Your task to perform on an android device: turn on notifications settings in the gmail app Image 0: 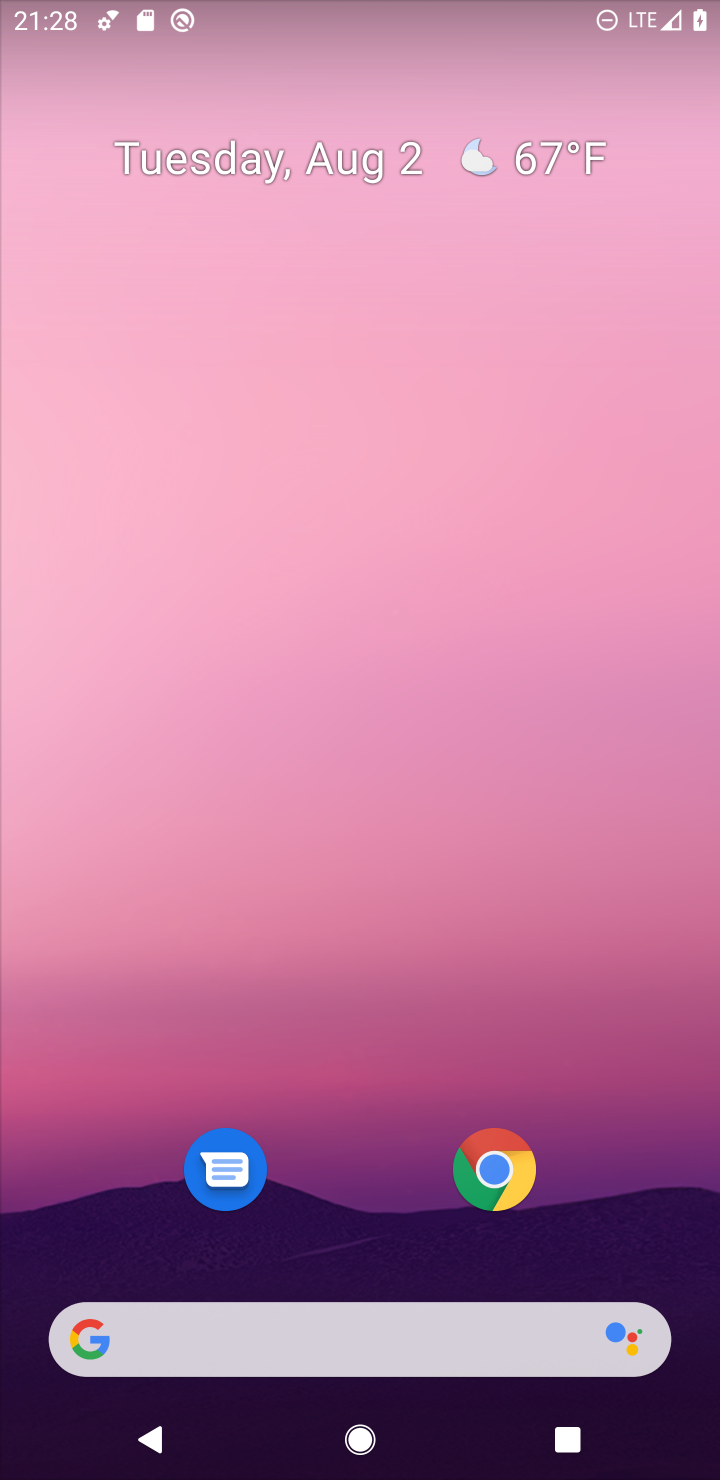
Step 0: drag from (321, 793) to (321, 146)
Your task to perform on an android device: turn on notifications settings in the gmail app Image 1: 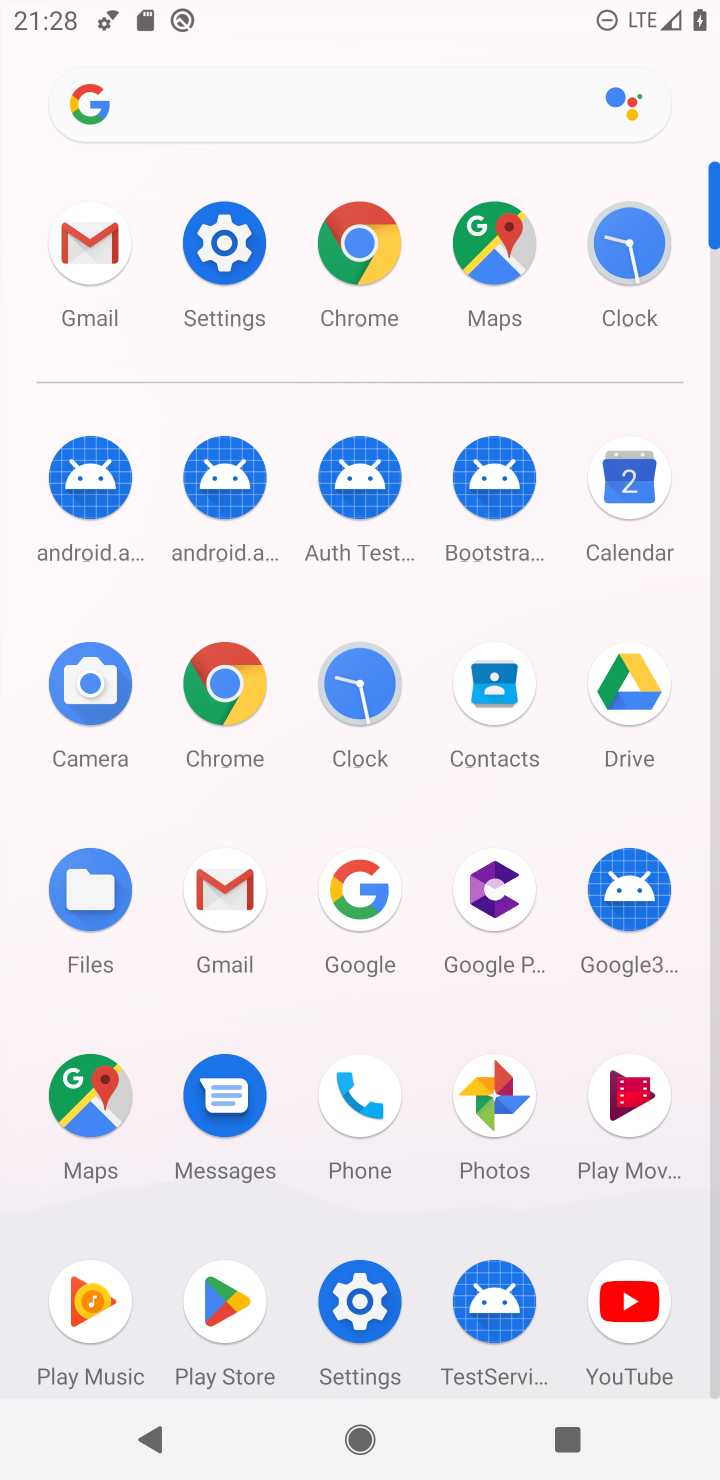
Step 1: click (224, 894)
Your task to perform on an android device: turn on notifications settings in the gmail app Image 2: 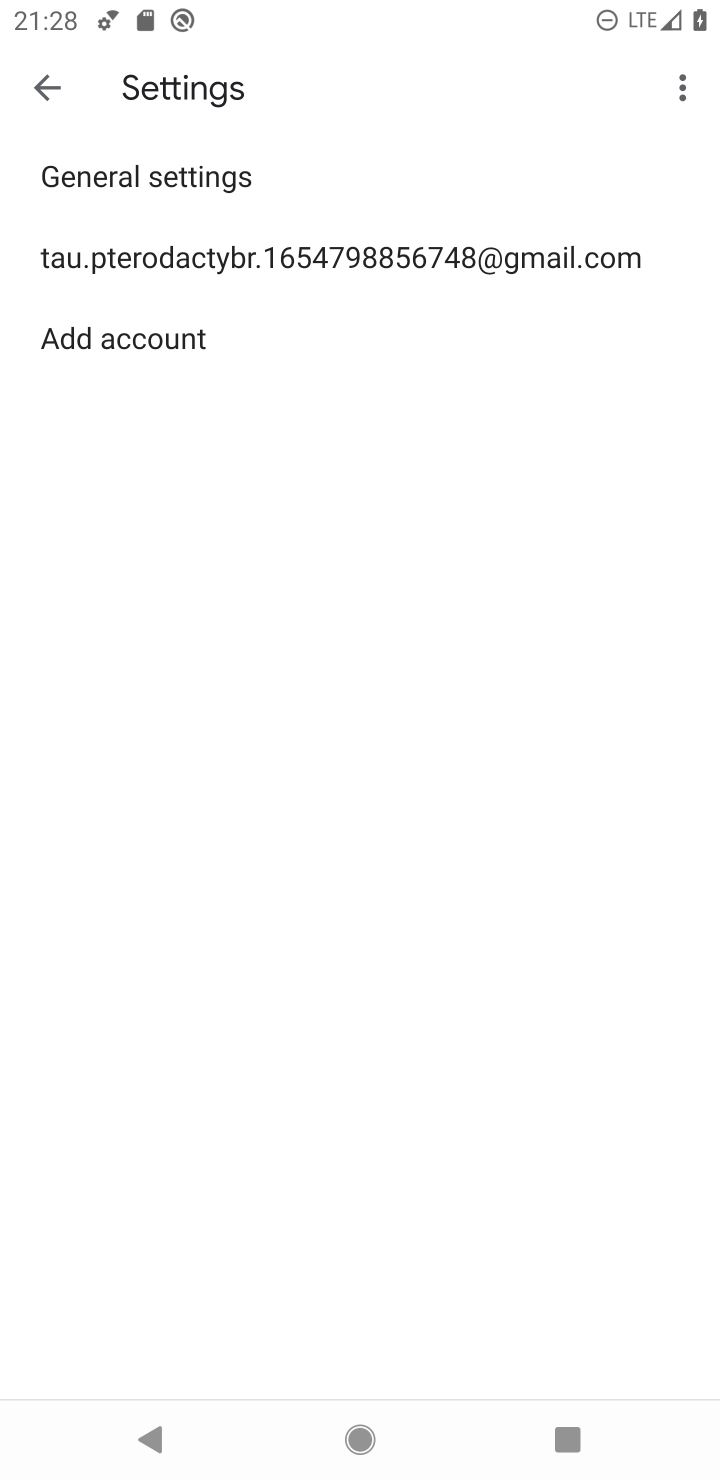
Step 2: click (213, 247)
Your task to perform on an android device: turn on notifications settings in the gmail app Image 3: 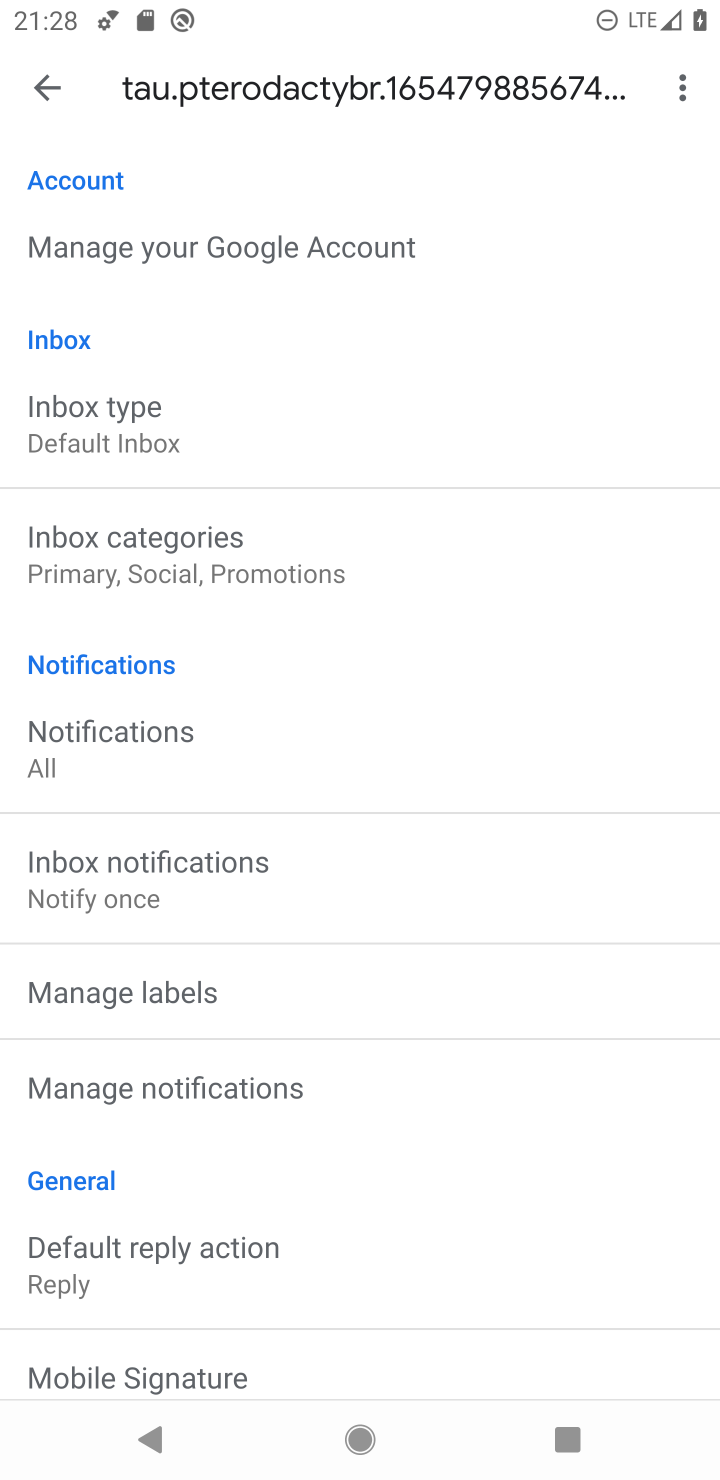
Step 3: click (115, 728)
Your task to perform on an android device: turn on notifications settings in the gmail app Image 4: 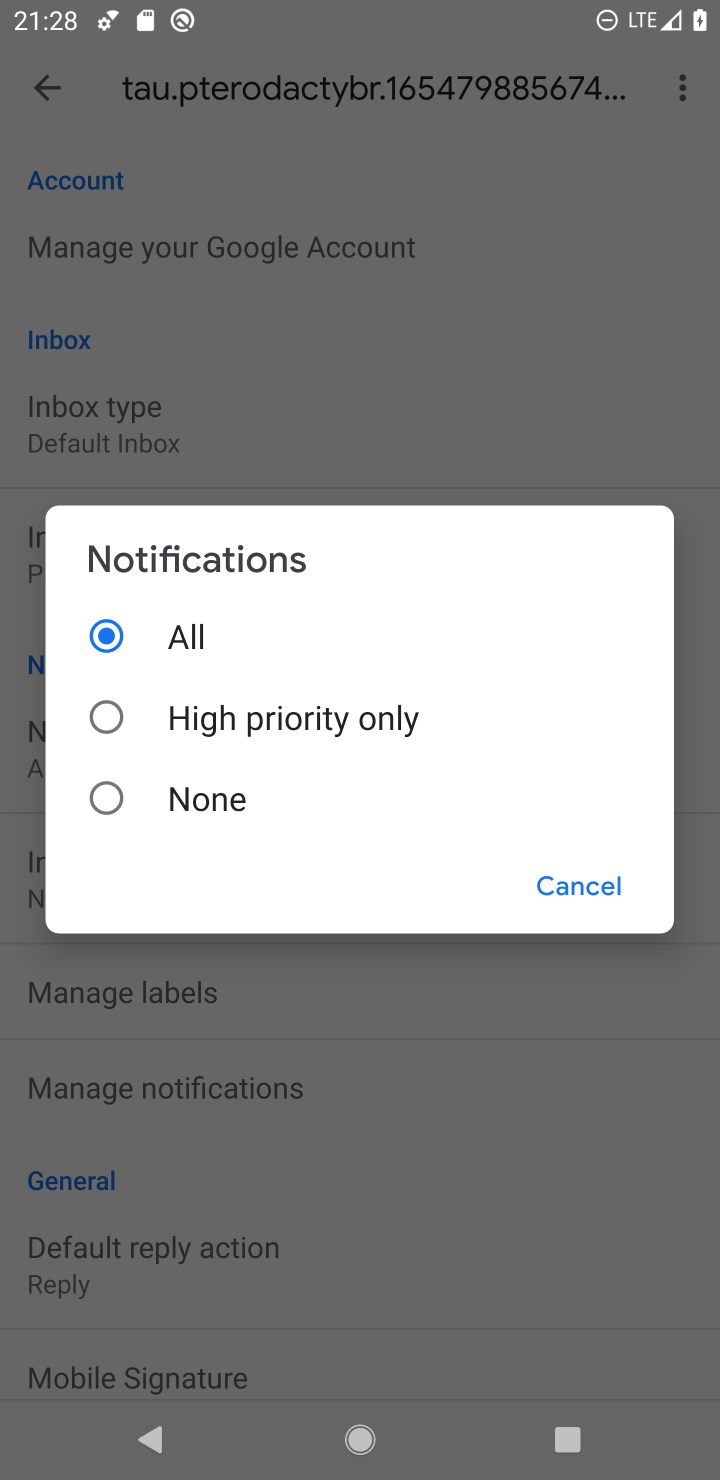
Step 4: task complete